Your task to perform on an android device: open chrome and create a bookmark for the current page Image 0: 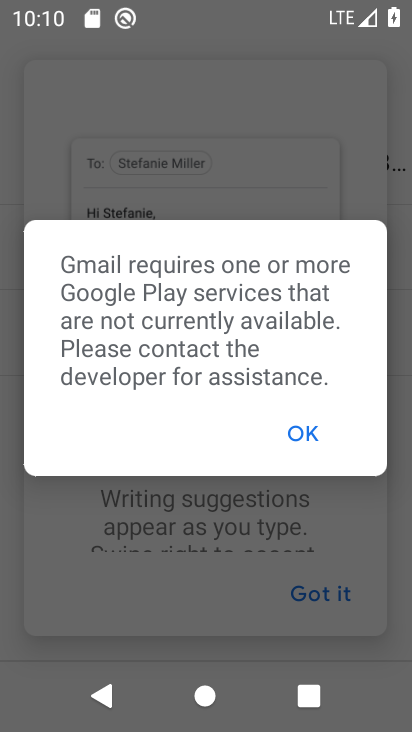
Step 0: press home button
Your task to perform on an android device: open chrome and create a bookmark for the current page Image 1: 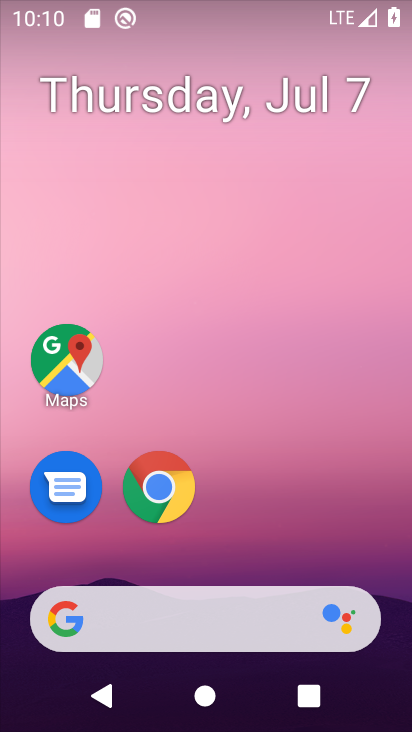
Step 1: drag from (326, 557) to (314, 106)
Your task to perform on an android device: open chrome and create a bookmark for the current page Image 2: 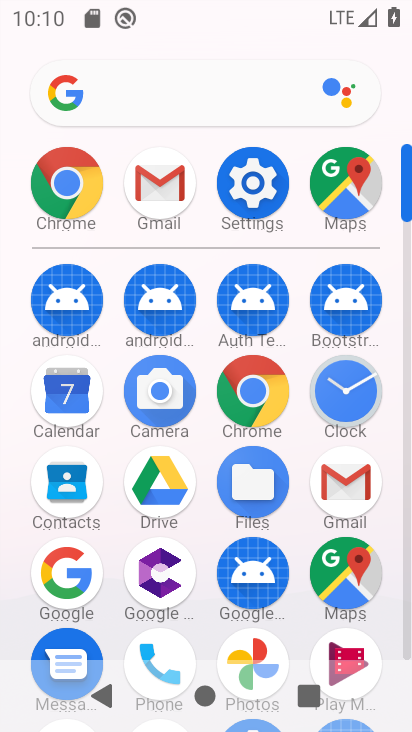
Step 2: click (246, 391)
Your task to perform on an android device: open chrome and create a bookmark for the current page Image 3: 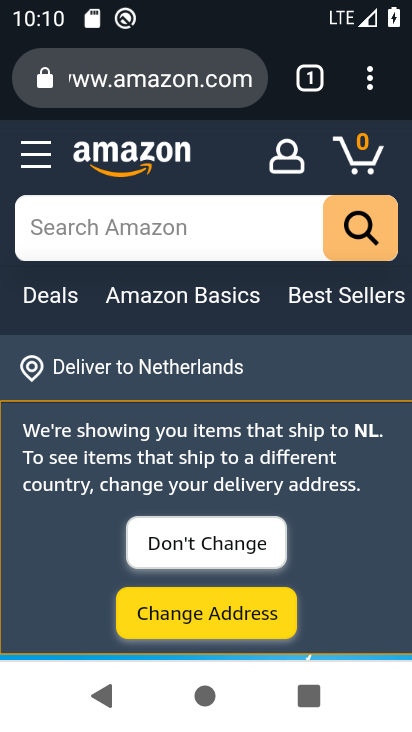
Step 3: click (374, 88)
Your task to perform on an android device: open chrome and create a bookmark for the current page Image 4: 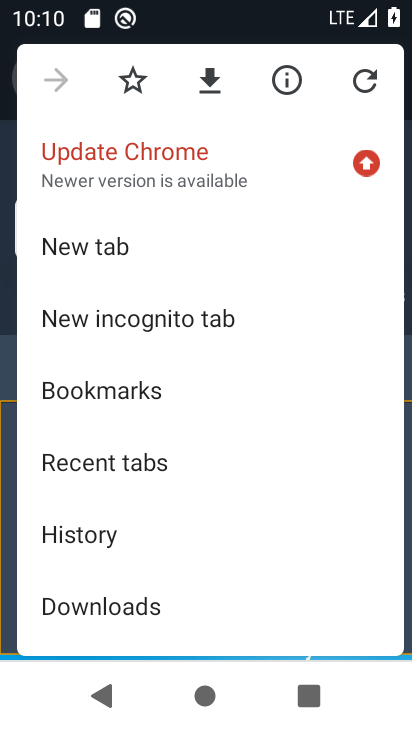
Step 4: click (135, 87)
Your task to perform on an android device: open chrome and create a bookmark for the current page Image 5: 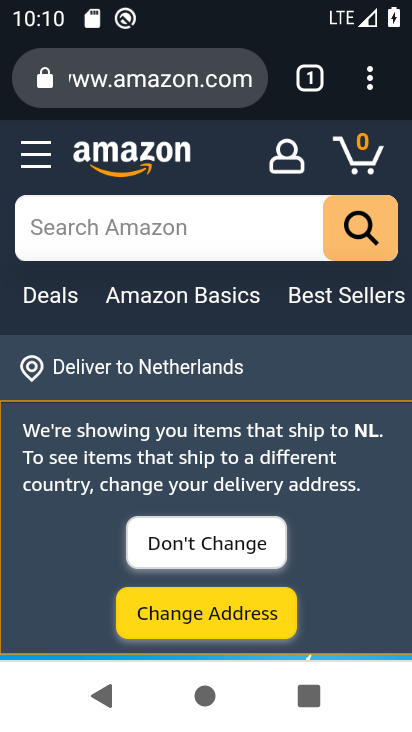
Step 5: task complete